Your task to perform on an android device: open sync settings in chrome Image 0: 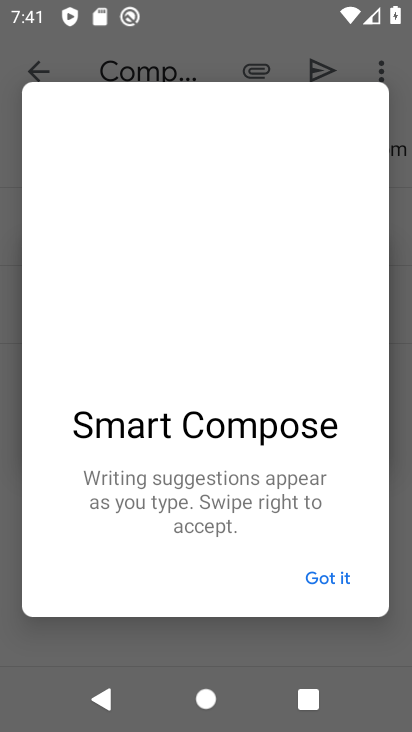
Step 0: press home button
Your task to perform on an android device: open sync settings in chrome Image 1: 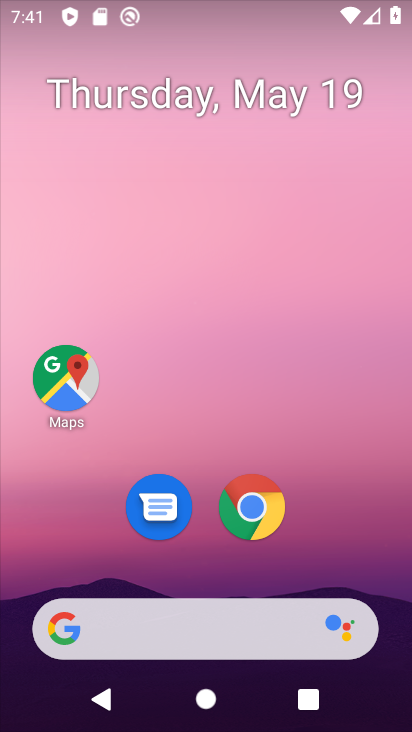
Step 1: click (249, 509)
Your task to perform on an android device: open sync settings in chrome Image 2: 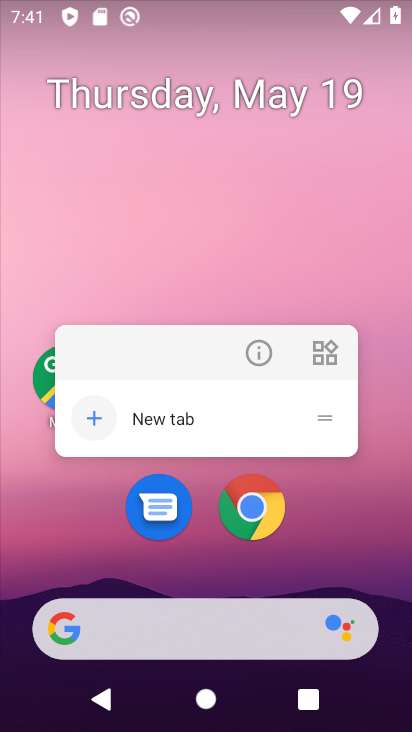
Step 2: click (248, 504)
Your task to perform on an android device: open sync settings in chrome Image 3: 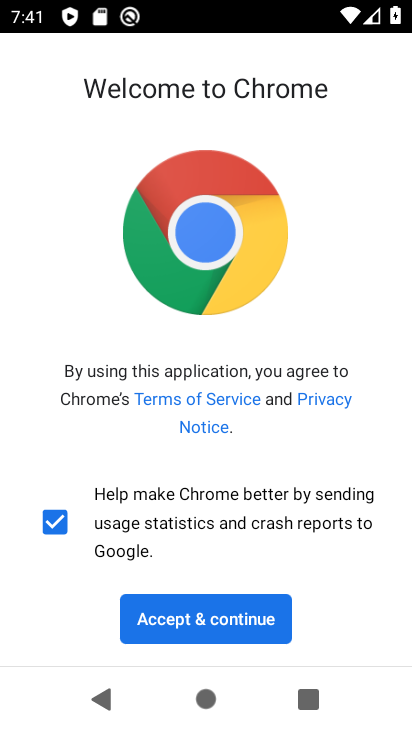
Step 3: click (270, 605)
Your task to perform on an android device: open sync settings in chrome Image 4: 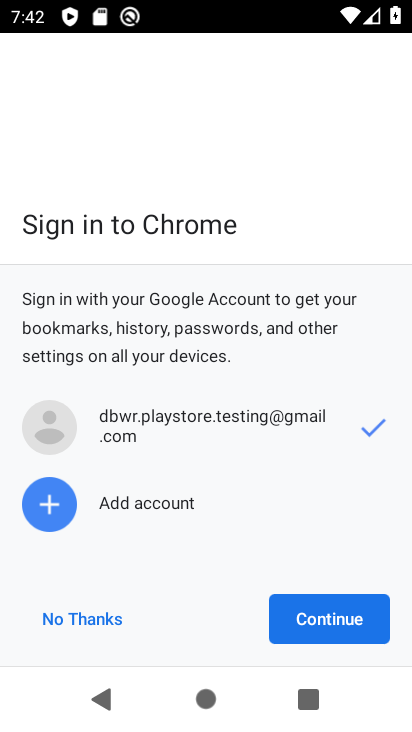
Step 4: click (349, 632)
Your task to perform on an android device: open sync settings in chrome Image 5: 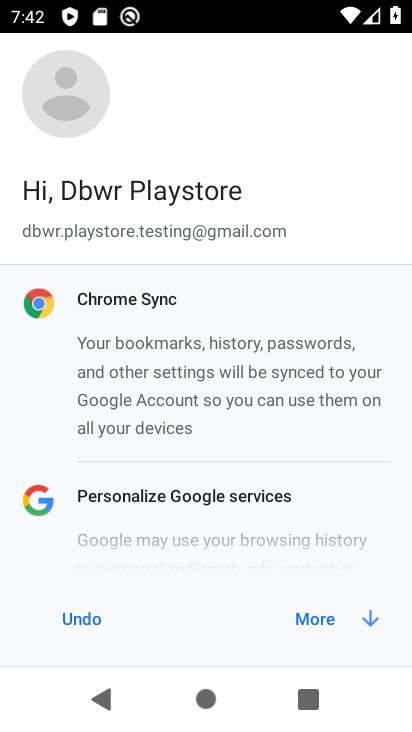
Step 5: click (342, 625)
Your task to perform on an android device: open sync settings in chrome Image 6: 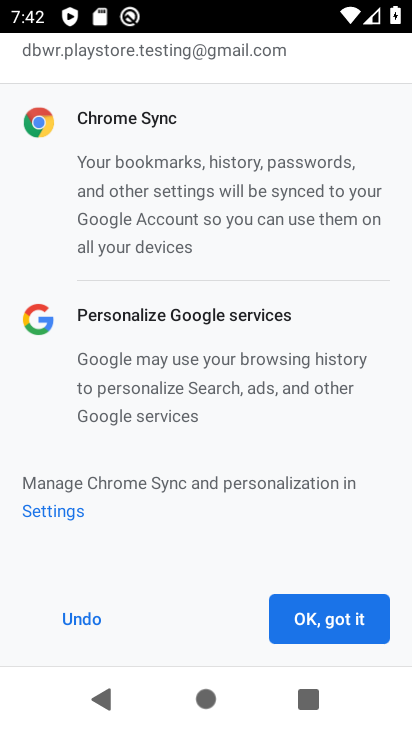
Step 6: click (341, 625)
Your task to perform on an android device: open sync settings in chrome Image 7: 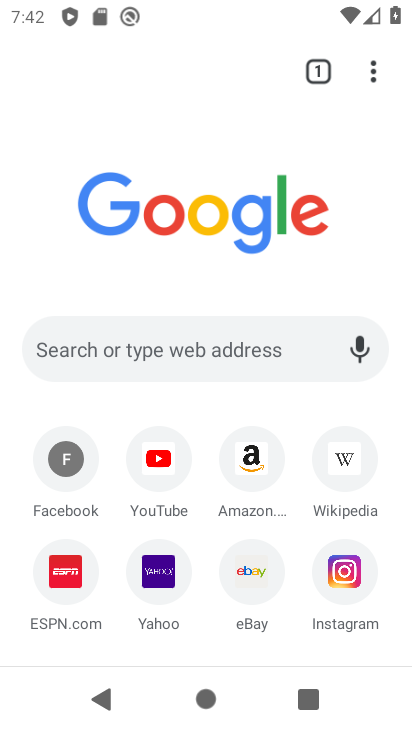
Step 7: click (379, 66)
Your task to perform on an android device: open sync settings in chrome Image 8: 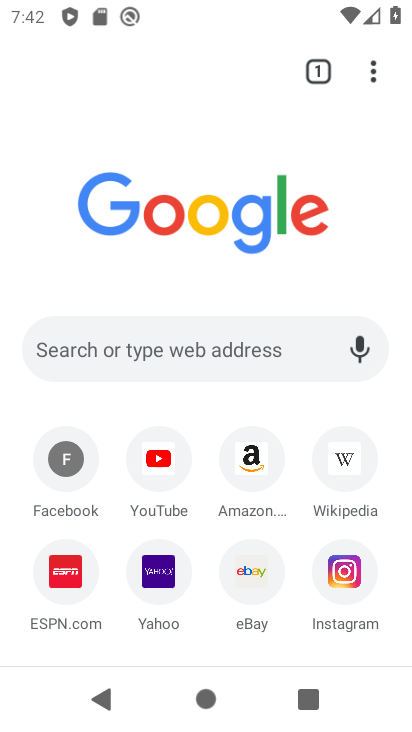
Step 8: drag from (377, 66) to (100, 499)
Your task to perform on an android device: open sync settings in chrome Image 9: 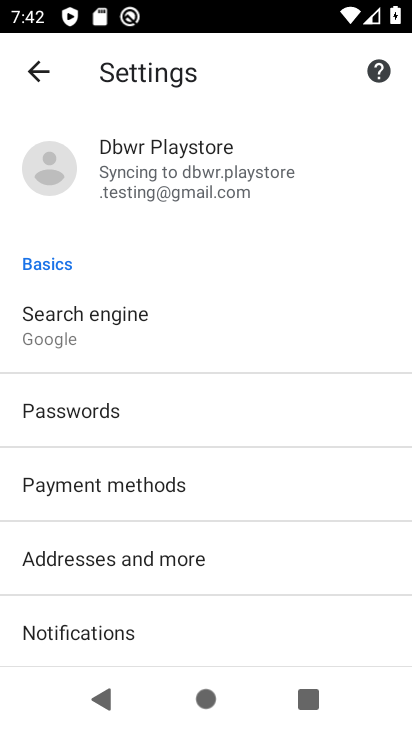
Step 9: drag from (281, 563) to (260, 201)
Your task to perform on an android device: open sync settings in chrome Image 10: 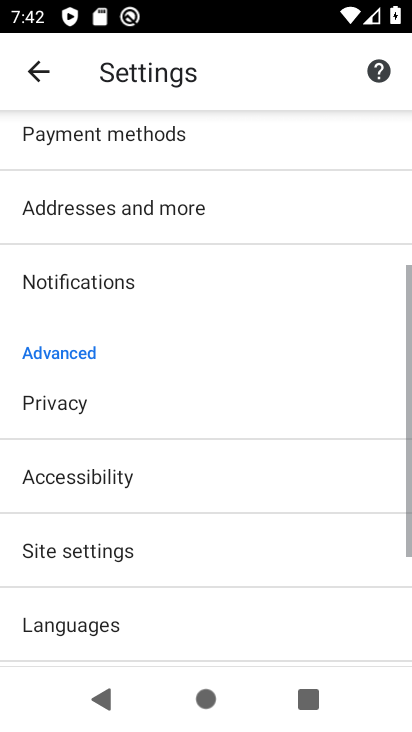
Step 10: click (260, 201)
Your task to perform on an android device: open sync settings in chrome Image 11: 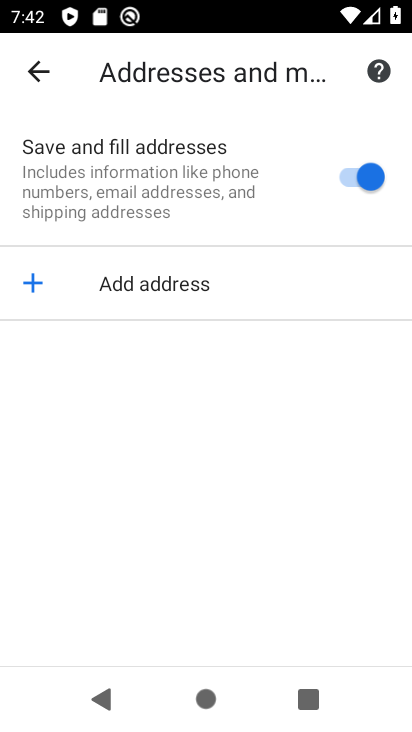
Step 11: click (27, 80)
Your task to perform on an android device: open sync settings in chrome Image 12: 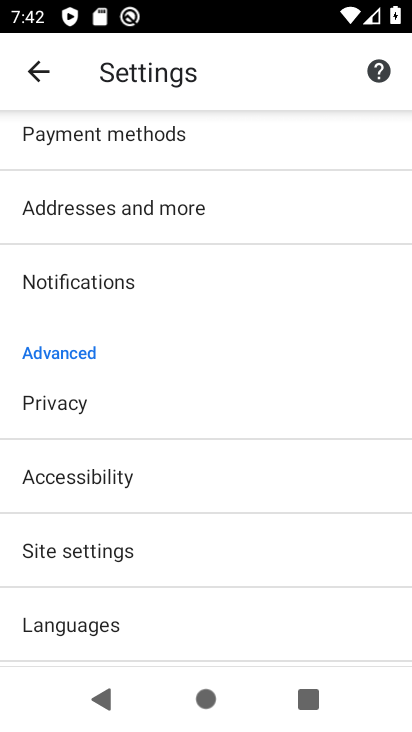
Step 12: drag from (171, 572) to (209, 701)
Your task to perform on an android device: open sync settings in chrome Image 13: 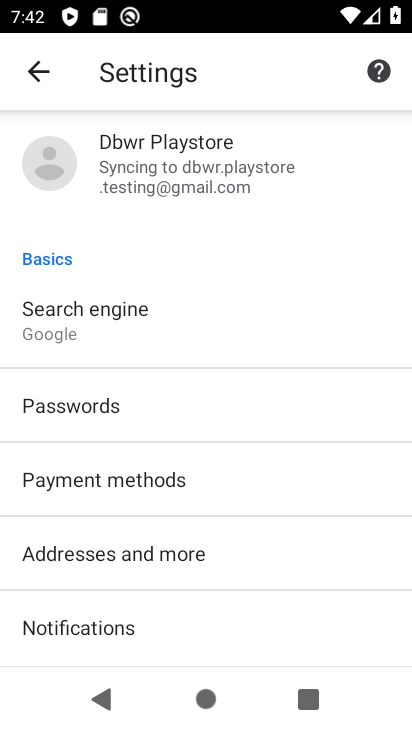
Step 13: click (146, 182)
Your task to perform on an android device: open sync settings in chrome Image 14: 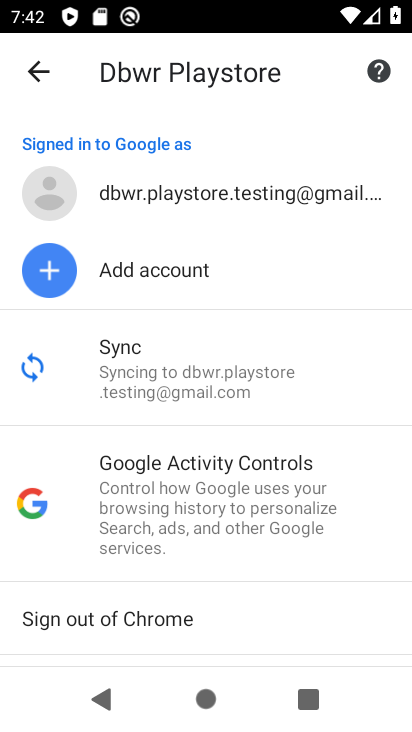
Step 14: click (124, 360)
Your task to perform on an android device: open sync settings in chrome Image 15: 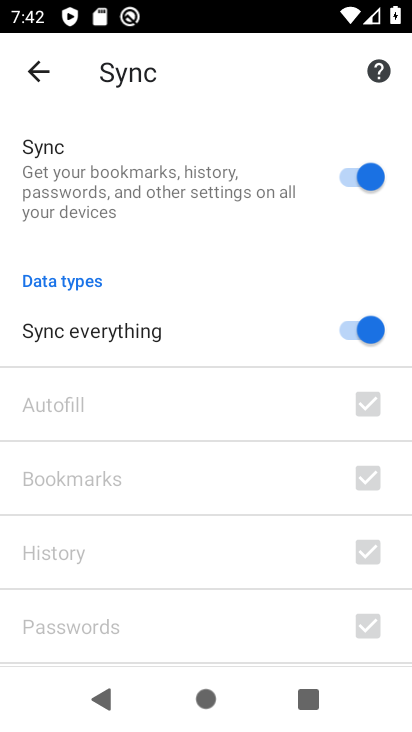
Step 15: task complete